Your task to perform on an android device: turn on the 24-hour format for clock Image 0: 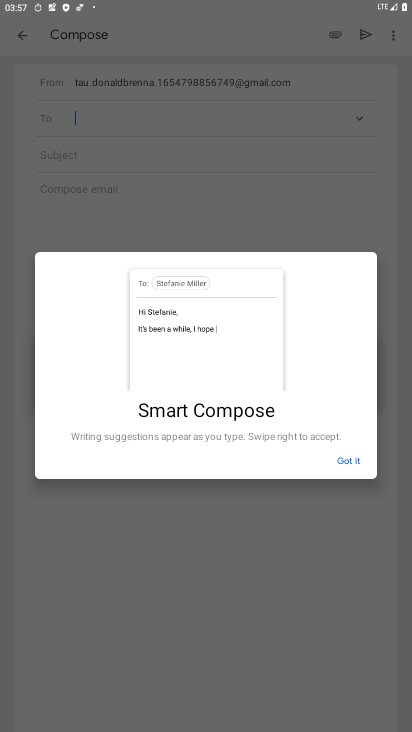
Step 0: press home button
Your task to perform on an android device: turn on the 24-hour format for clock Image 1: 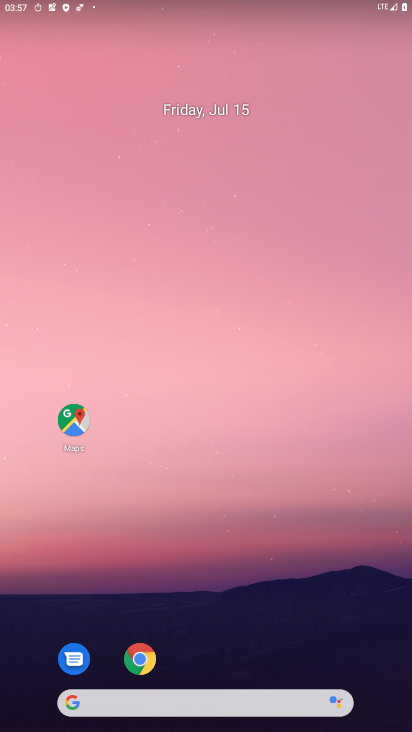
Step 1: drag from (254, 629) to (321, 44)
Your task to perform on an android device: turn on the 24-hour format for clock Image 2: 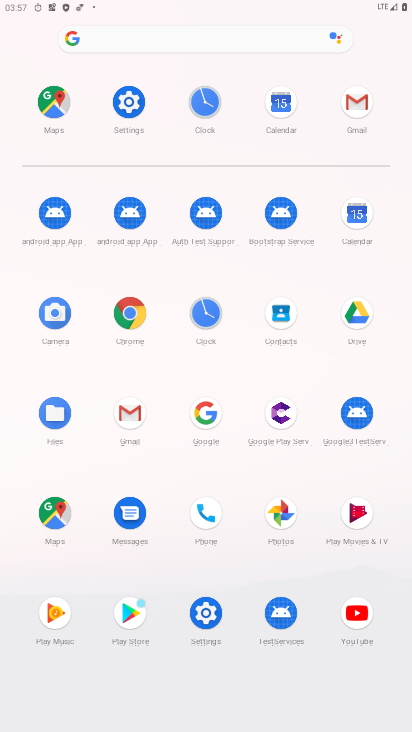
Step 2: click (207, 319)
Your task to perform on an android device: turn on the 24-hour format for clock Image 3: 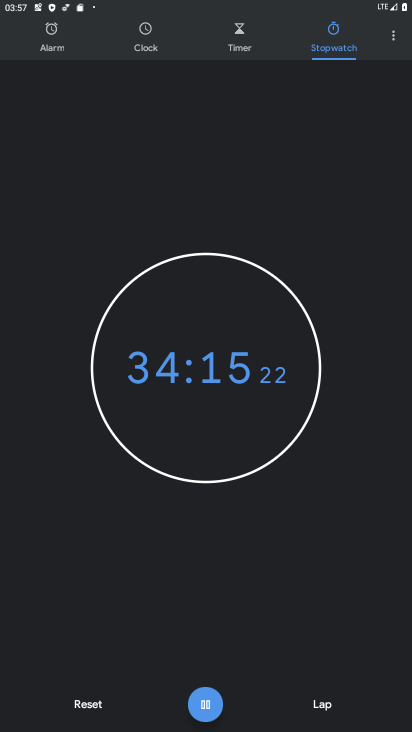
Step 3: click (390, 35)
Your task to perform on an android device: turn on the 24-hour format for clock Image 4: 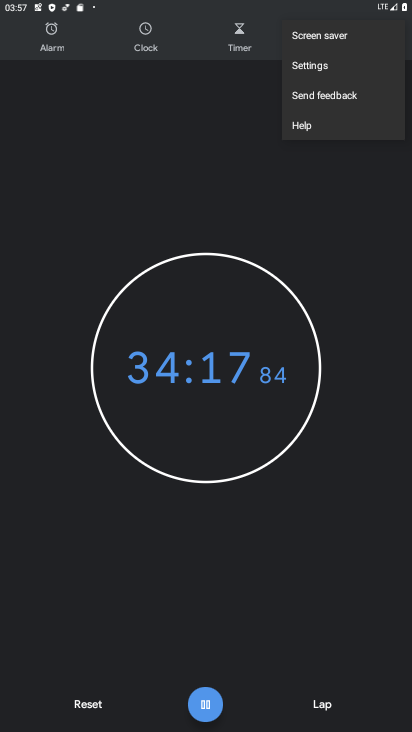
Step 4: click (316, 66)
Your task to perform on an android device: turn on the 24-hour format for clock Image 5: 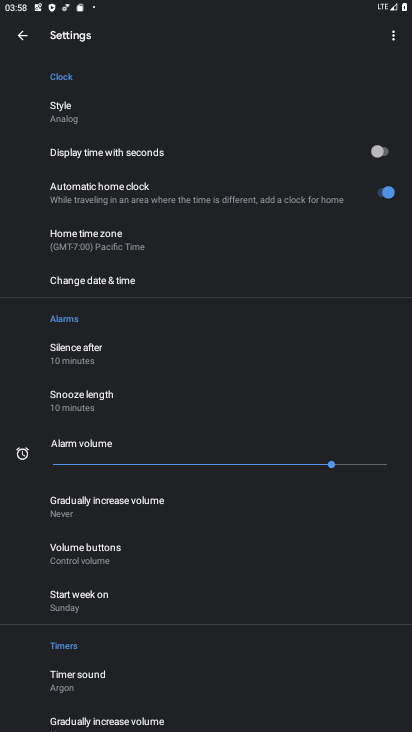
Step 5: click (179, 282)
Your task to perform on an android device: turn on the 24-hour format for clock Image 6: 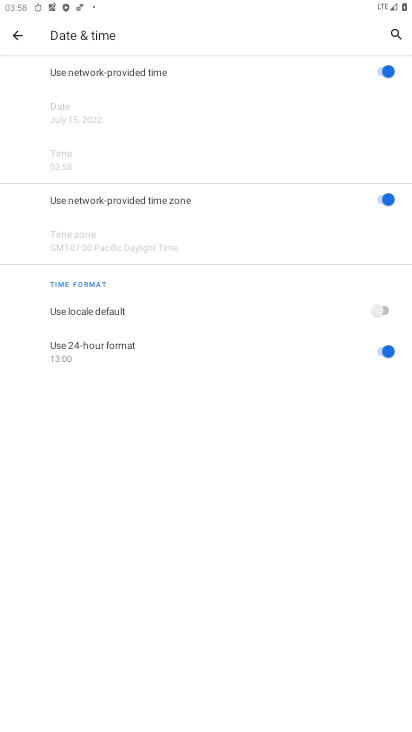
Step 6: task complete